Your task to perform on an android device: toggle notification dots Image 0: 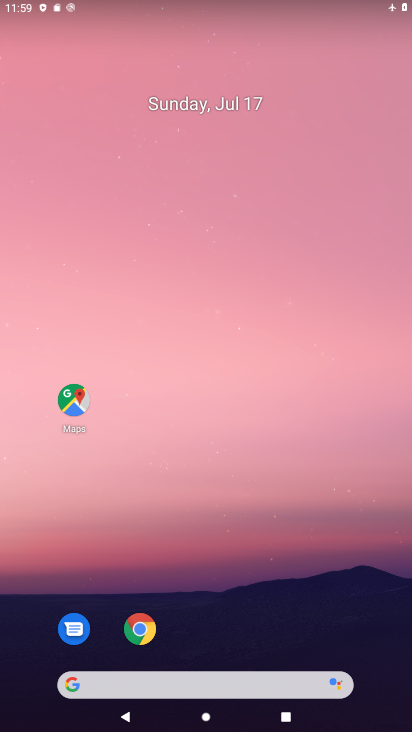
Step 0: press home button
Your task to perform on an android device: toggle notification dots Image 1: 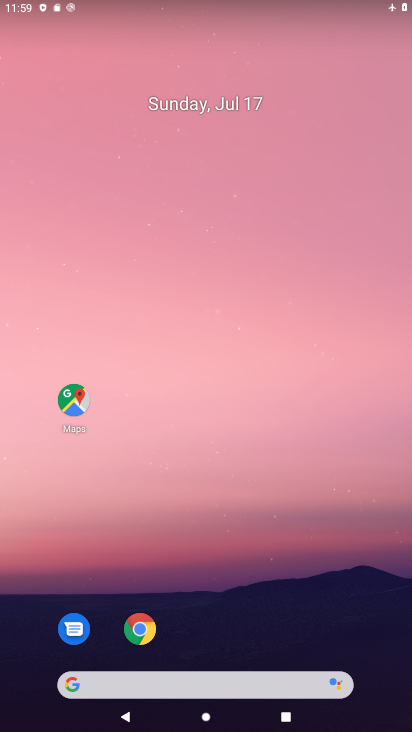
Step 1: drag from (223, 652) to (277, 3)
Your task to perform on an android device: toggle notification dots Image 2: 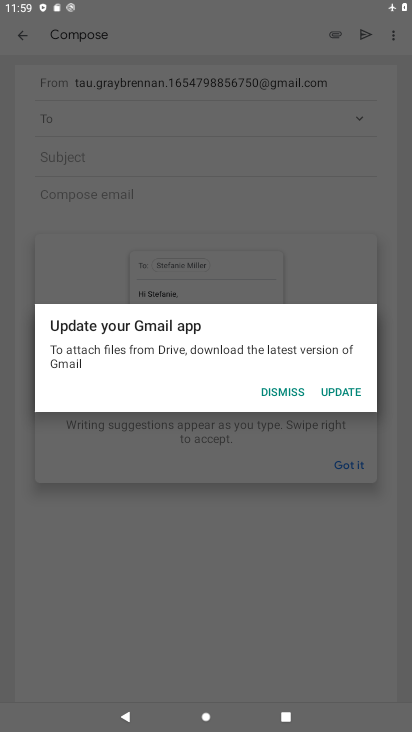
Step 2: click (52, 95)
Your task to perform on an android device: toggle notification dots Image 3: 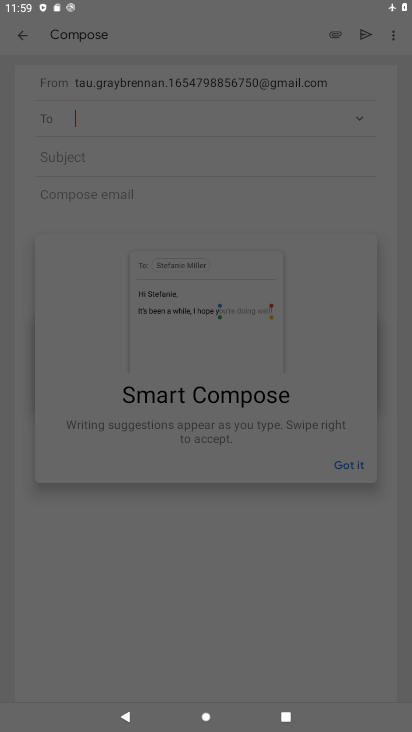
Step 3: press home button
Your task to perform on an android device: toggle notification dots Image 4: 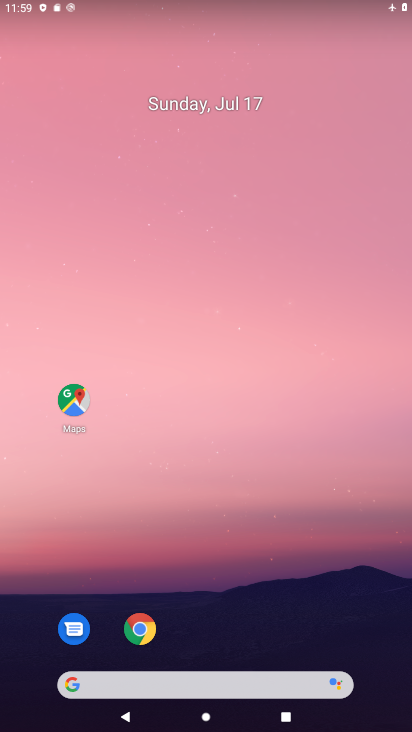
Step 4: drag from (227, 648) to (232, 39)
Your task to perform on an android device: toggle notification dots Image 5: 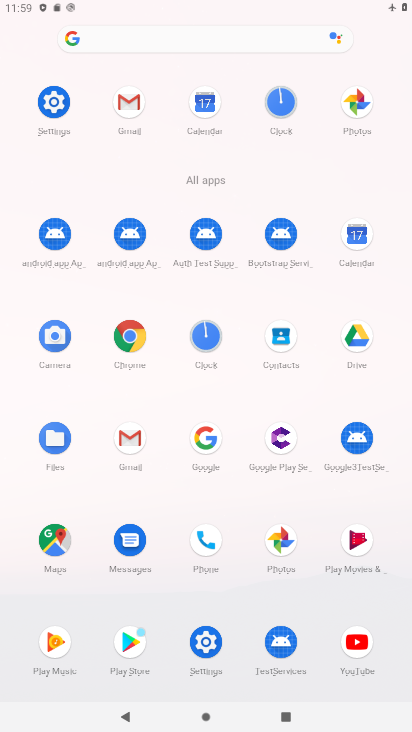
Step 5: click (50, 94)
Your task to perform on an android device: toggle notification dots Image 6: 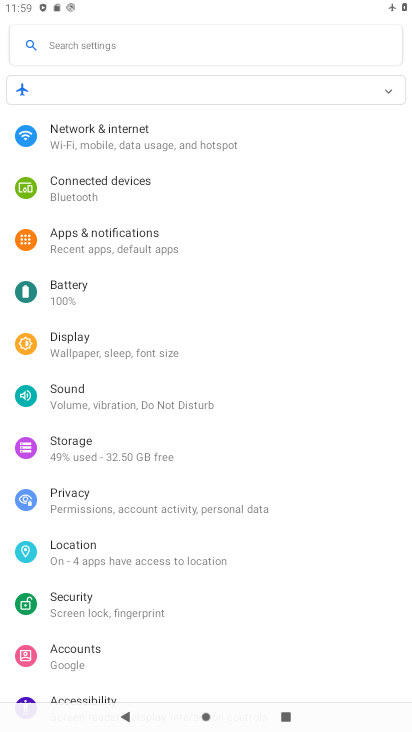
Step 6: click (151, 239)
Your task to perform on an android device: toggle notification dots Image 7: 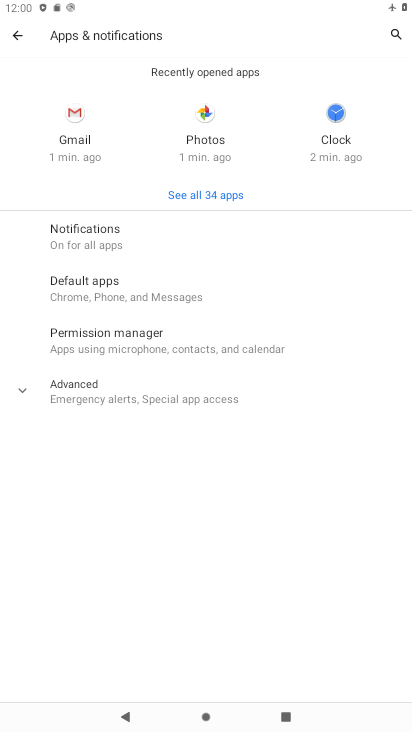
Step 7: click (30, 390)
Your task to perform on an android device: toggle notification dots Image 8: 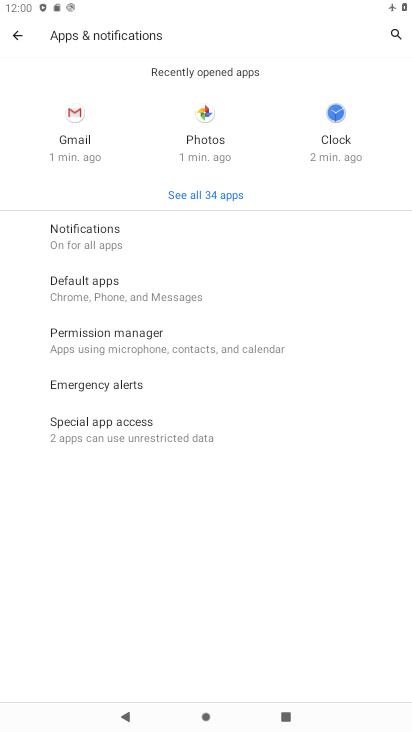
Step 8: click (114, 227)
Your task to perform on an android device: toggle notification dots Image 9: 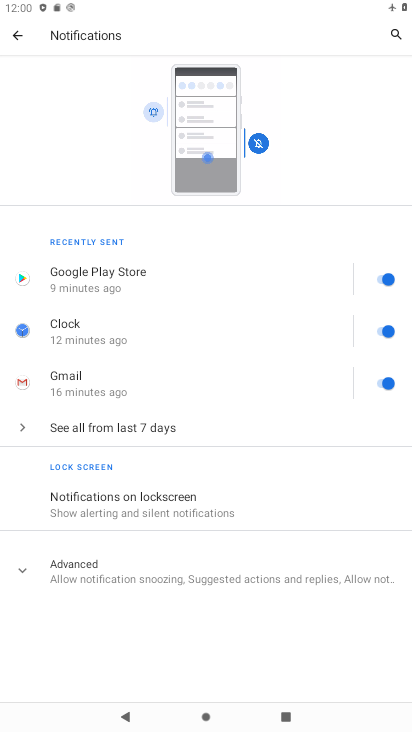
Step 9: click (34, 571)
Your task to perform on an android device: toggle notification dots Image 10: 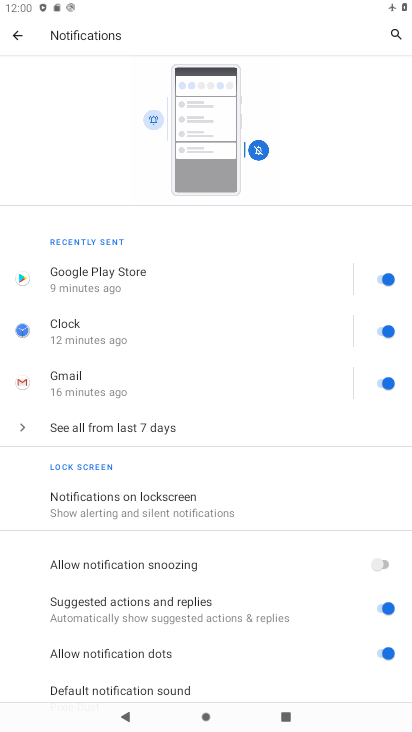
Step 10: click (386, 604)
Your task to perform on an android device: toggle notification dots Image 11: 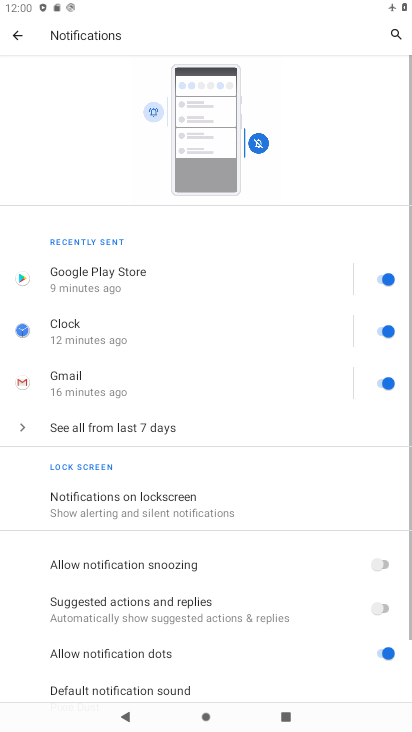
Step 11: task complete